Your task to perform on an android device: turn off picture-in-picture Image 0: 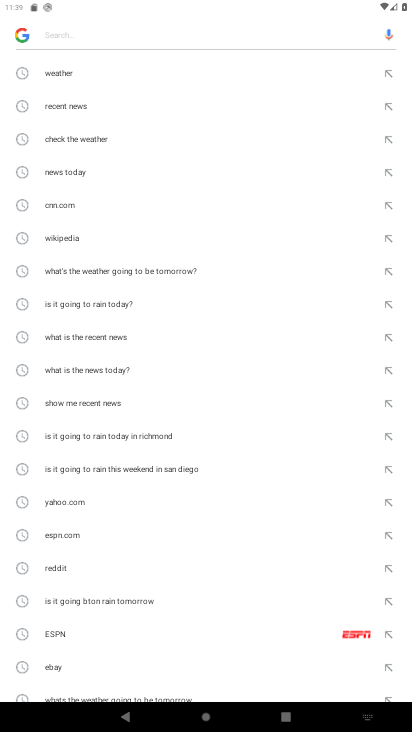
Step 0: press home button
Your task to perform on an android device: turn off picture-in-picture Image 1: 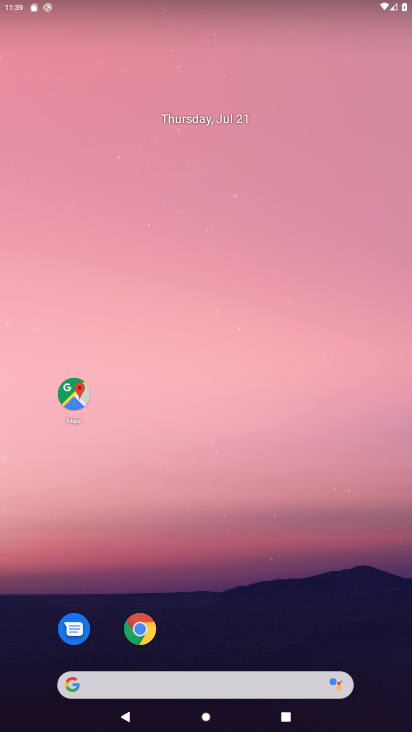
Step 1: click (134, 636)
Your task to perform on an android device: turn off picture-in-picture Image 2: 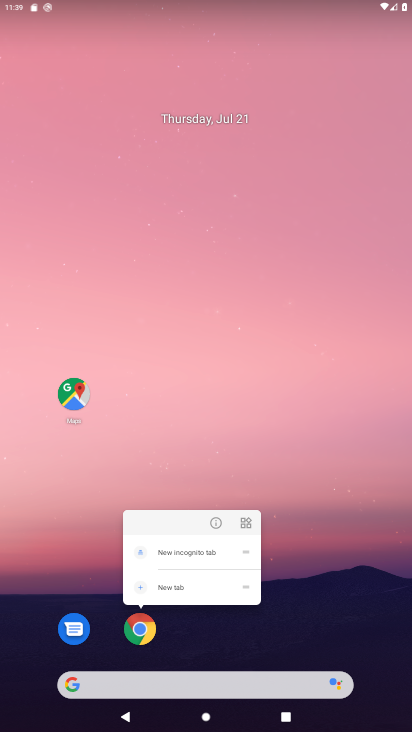
Step 2: click (210, 516)
Your task to perform on an android device: turn off picture-in-picture Image 3: 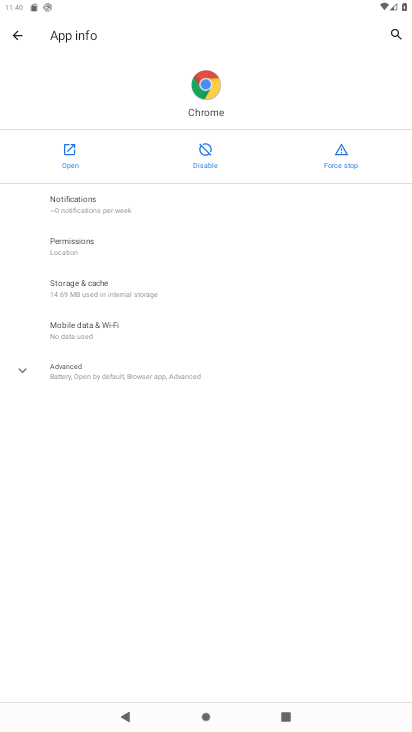
Step 3: click (84, 373)
Your task to perform on an android device: turn off picture-in-picture Image 4: 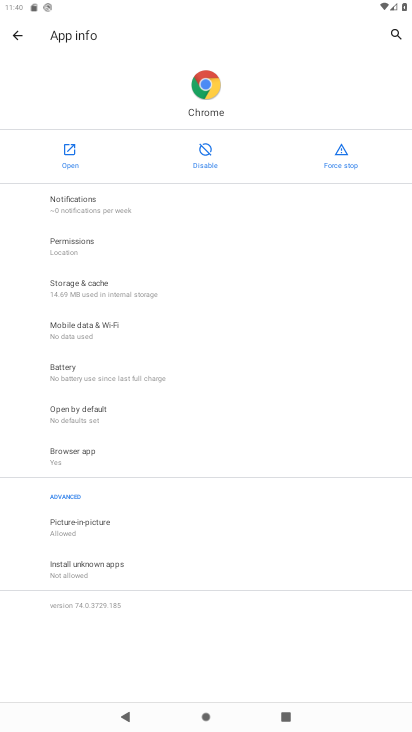
Step 4: click (95, 516)
Your task to perform on an android device: turn off picture-in-picture Image 5: 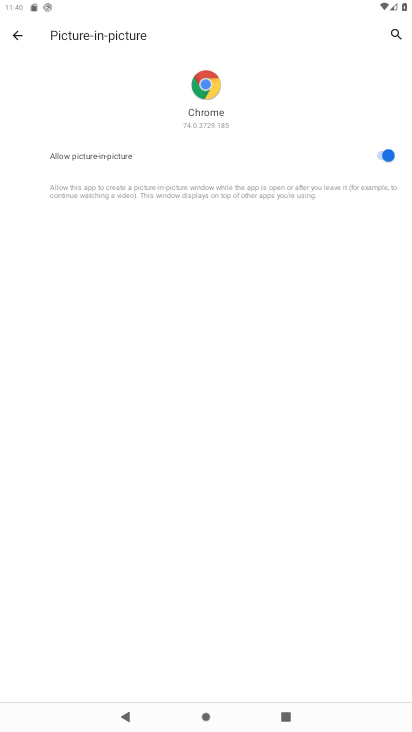
Step 5: click (356, 156)
Your task to perform on an android device: turn off picture-in-picture Image 6: 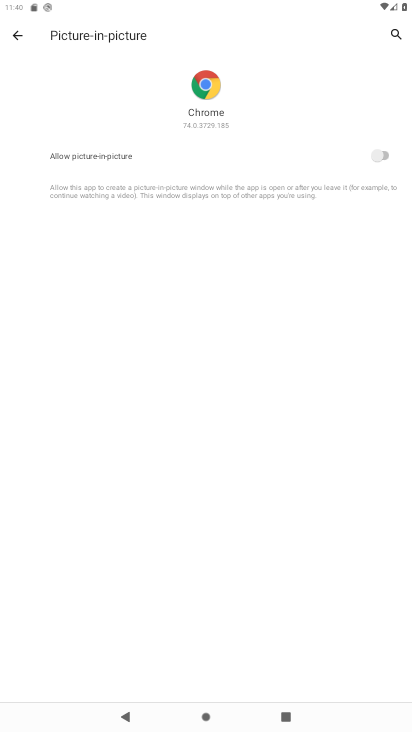
Step 6: task complete